Your task to perform on an android device: open wifi settings Image 0: 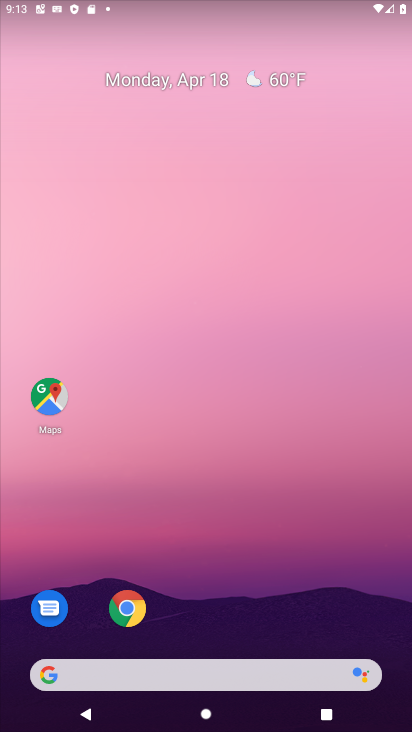
Step 0: click (310, 220)
Your task to perform on an android device: open wifi settings Image 1: 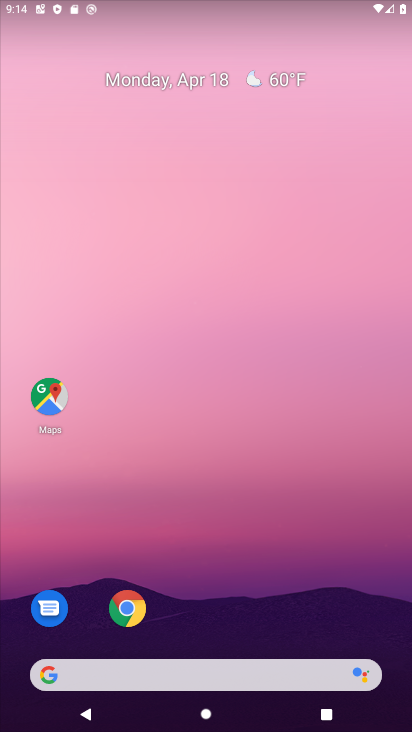
Step 1: drag from (224, 551) to (312, 304)
Your task to perform on an android device: open wifi settings Image 2: 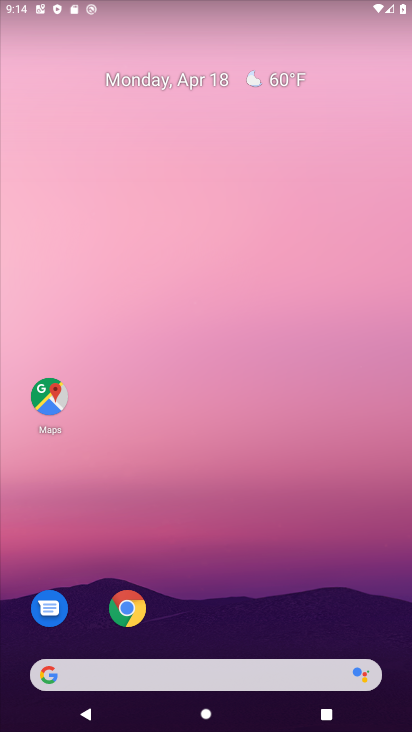
Step 2: click (249, 122)
Your task to perform on an android device: open wifi settings Image 3: 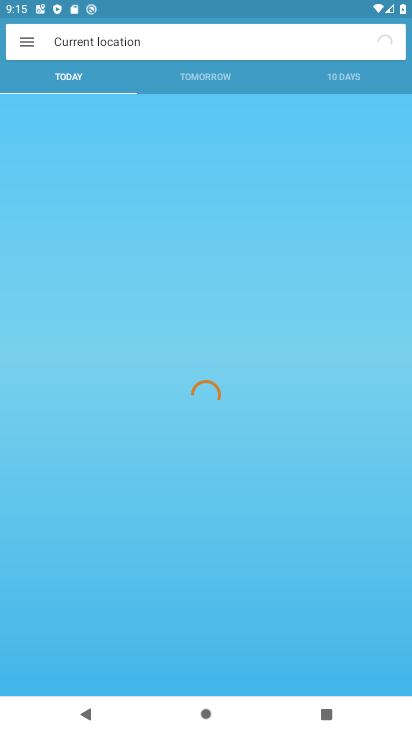
Step 3: drag from (215, 571) to (242, 231)
Your task to perform on an android device: open wifi settings Image 4: 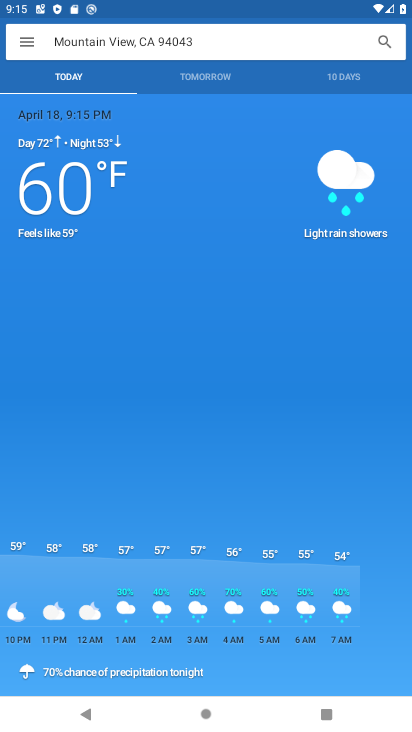
Step 4: drag from (221, 507) to (285, 225)
Your task to perform on an android device: open wifi settings Image 5: 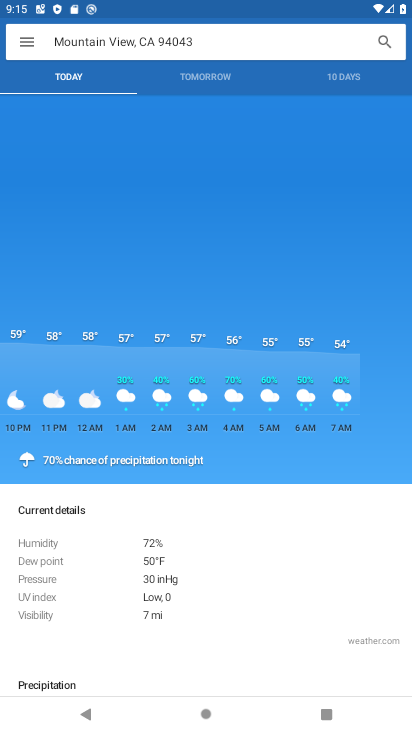
Step 5: press home button
Your task to perform on an android device: open wifi settings Image 6: 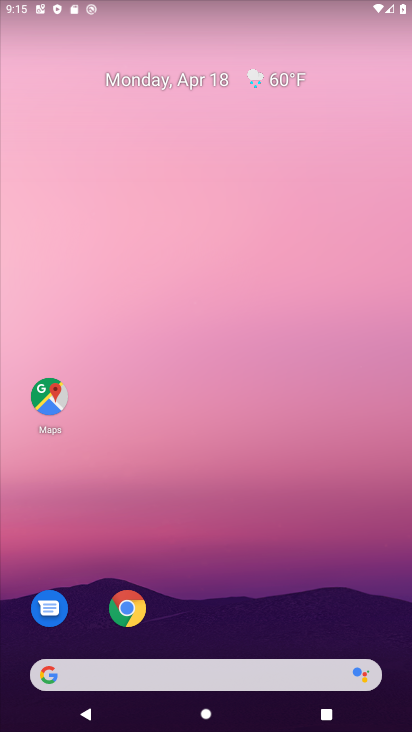
Step 6: drag from (219, 508) to (298, 125)
Your task to perform on an android device: open wifi settings Image 7: 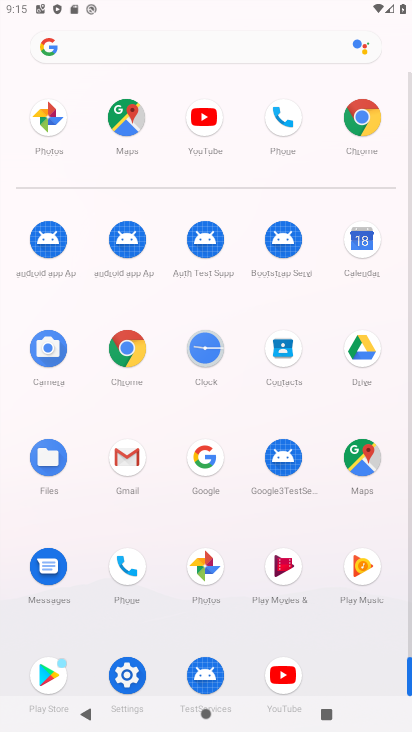
Step 7: click (117, 675)
Your task to perform on an android device: open wifi settings Image 8: 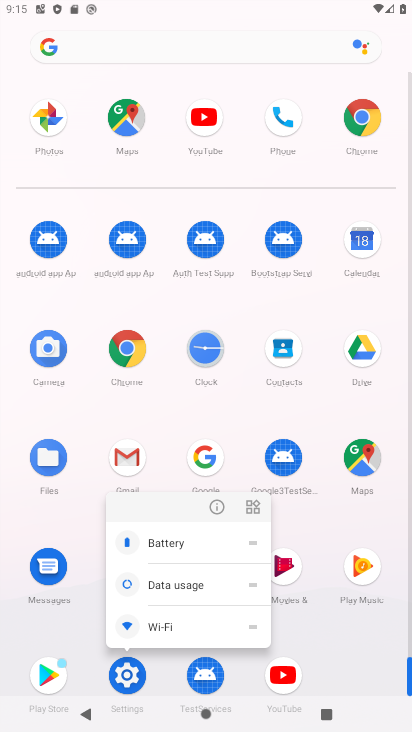
Step 8: click (215, 508)
Your task to perform on an android device: open wifi settings Image 9: 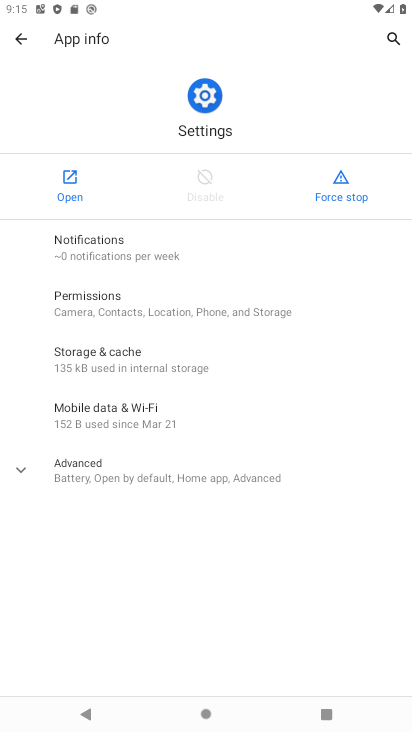
Step 9: click (67, 188)
Your task to perform on an android device: open wifi settings Image 10: 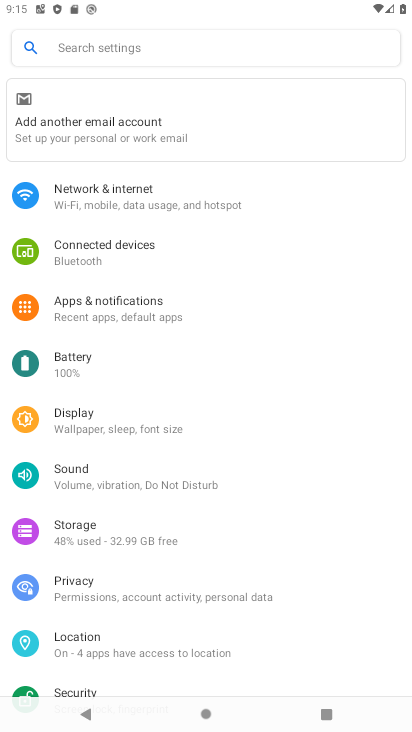
Step 10: click (106, 178)
Your task to perform on an android device: open wifi settings Image 11: 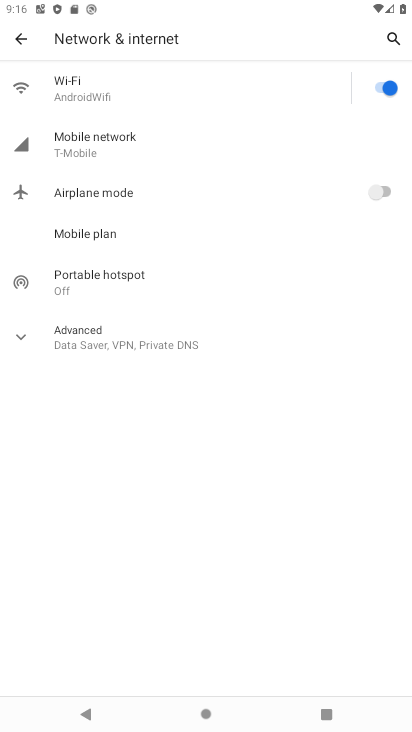
Step 11: click (212, 95)
Your task to perform on an android device: open wifi settings Image 12: 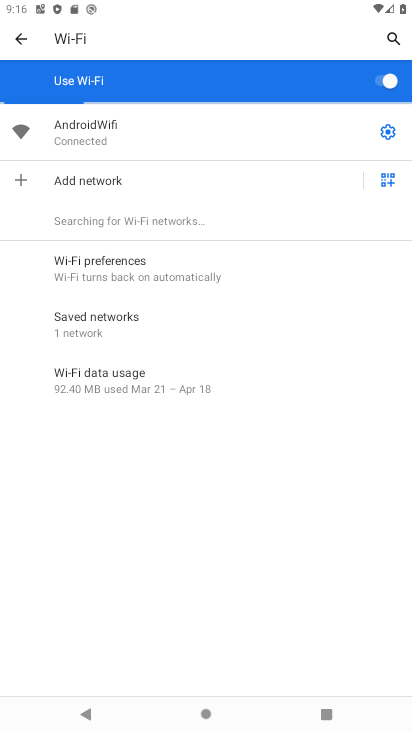
Step 12: task complete